Your task to perform on an android device: Open Android settings Image 0: 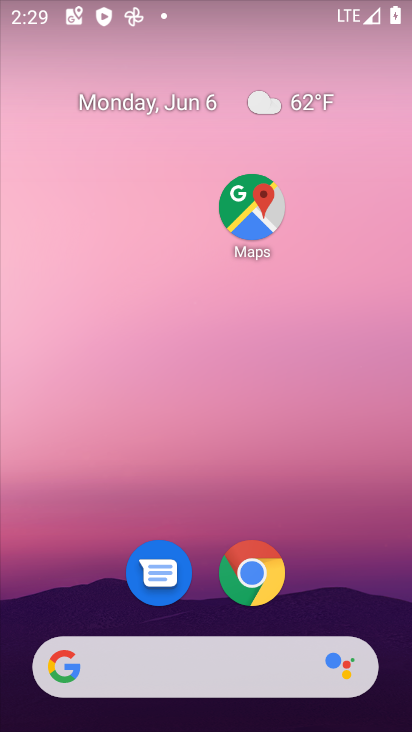
Step 0: drag from (211, 472) to (246, 6)
Your task to perform on an android device: Open Android settings Image 1: 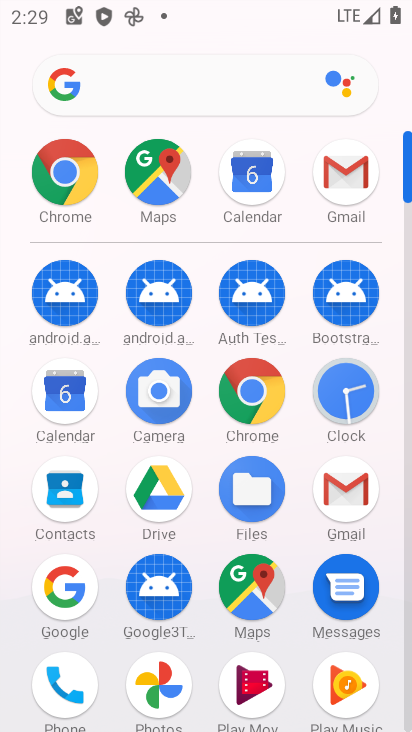
Step 1: drag from (198, 246) to (222, 5)
Your task to perform on an android device: Open Android settings Image 2: 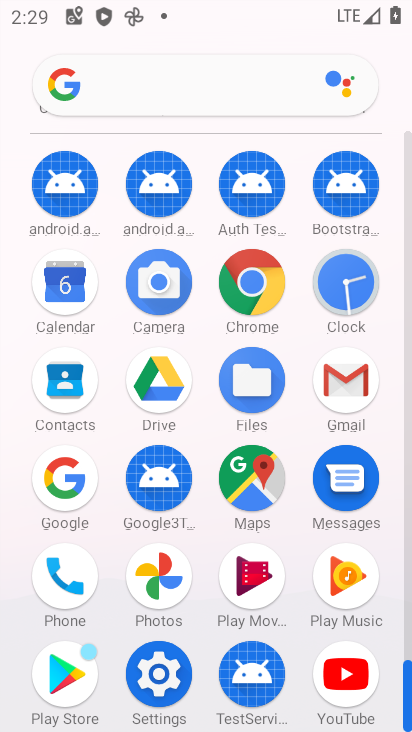
Step 2: click (166, 684)
Your task to perform on an android device: Open Android settings Image 3: 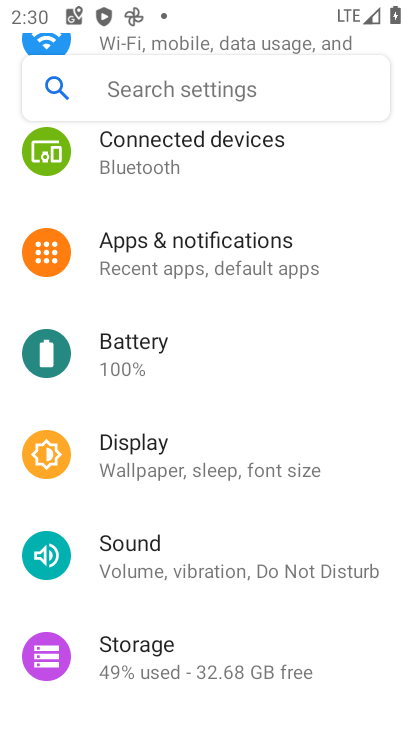
Step 3: task complete